Your task to perform on an android device: open app "DoorDash - Food Delivery" Image 0: 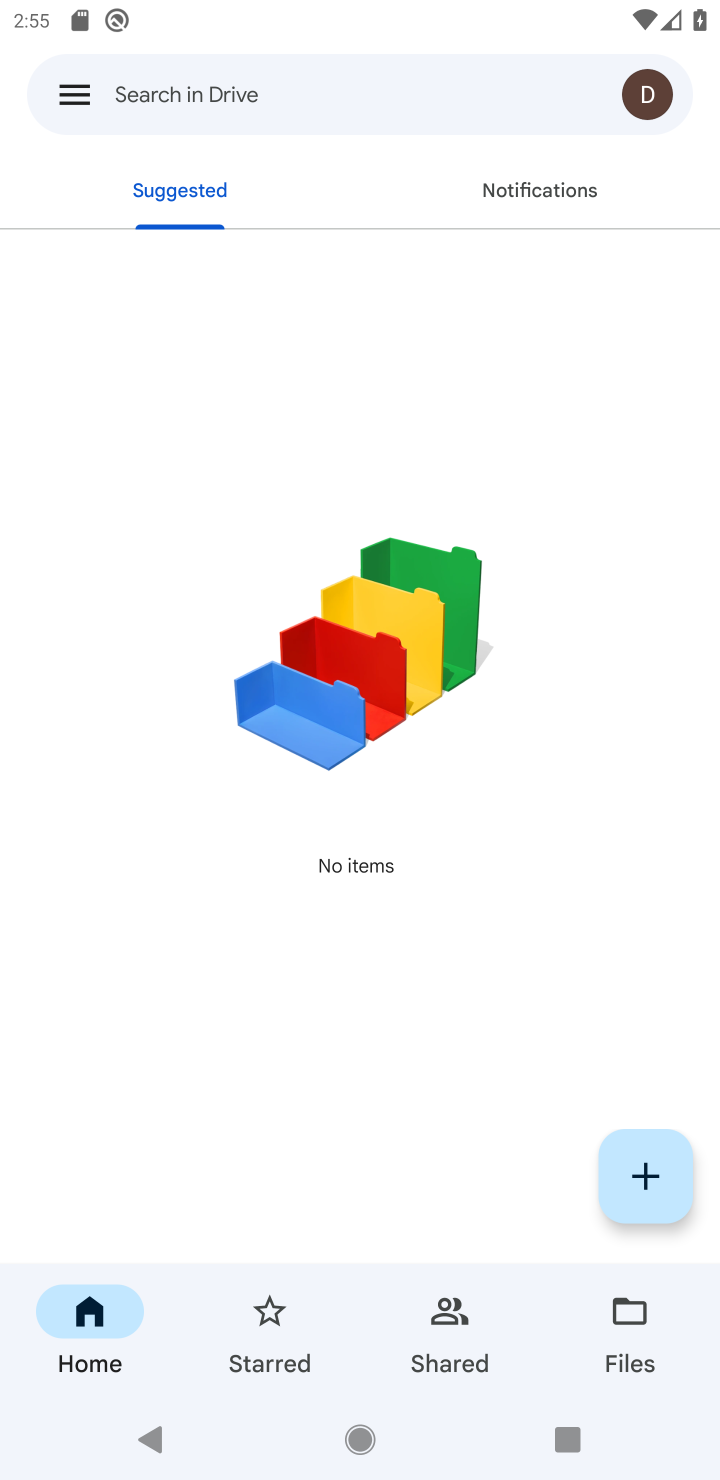
Step 0: press back button
Your task to perform on an android device: open app "DoorDash - Food Delivery" Image 1: 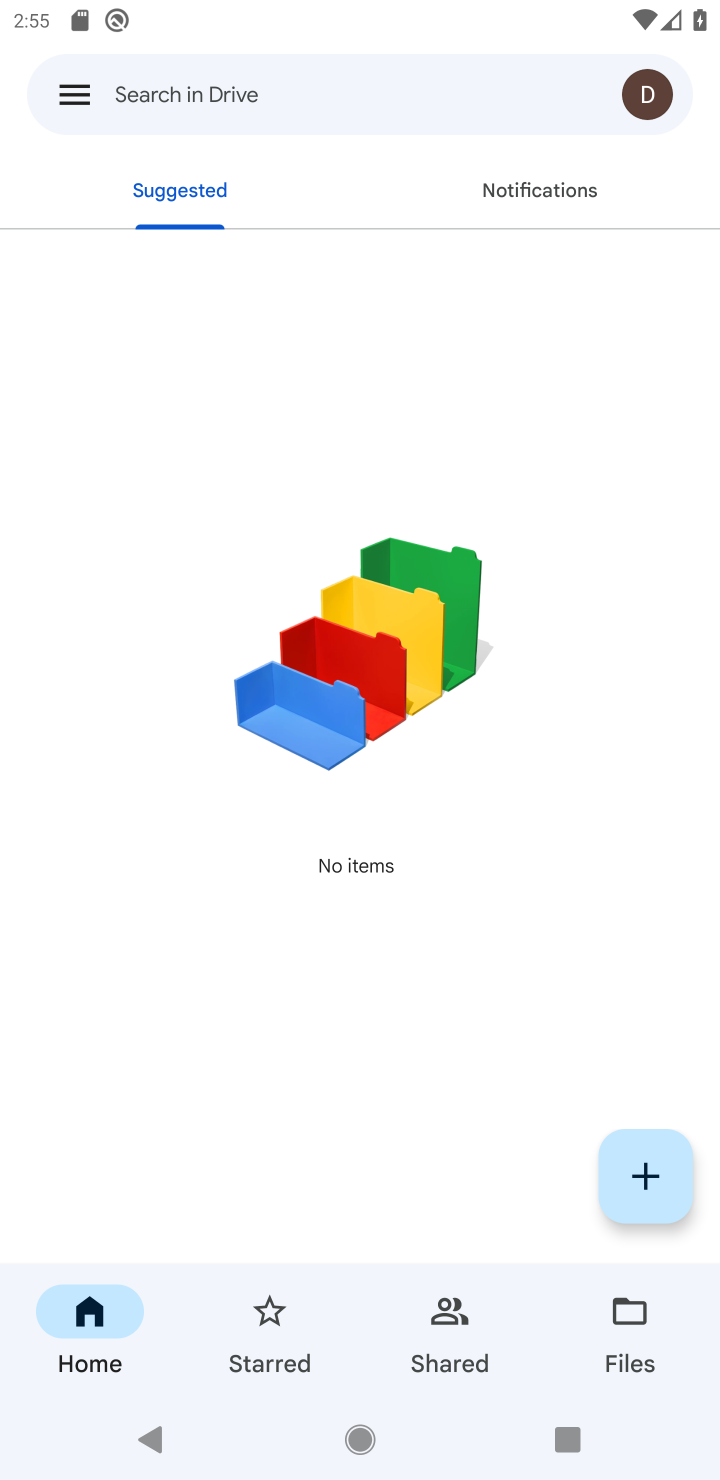
Step 1: press back button
Your task to perform on an android device: open app "DoorDash - Food Delivery" Image 2: 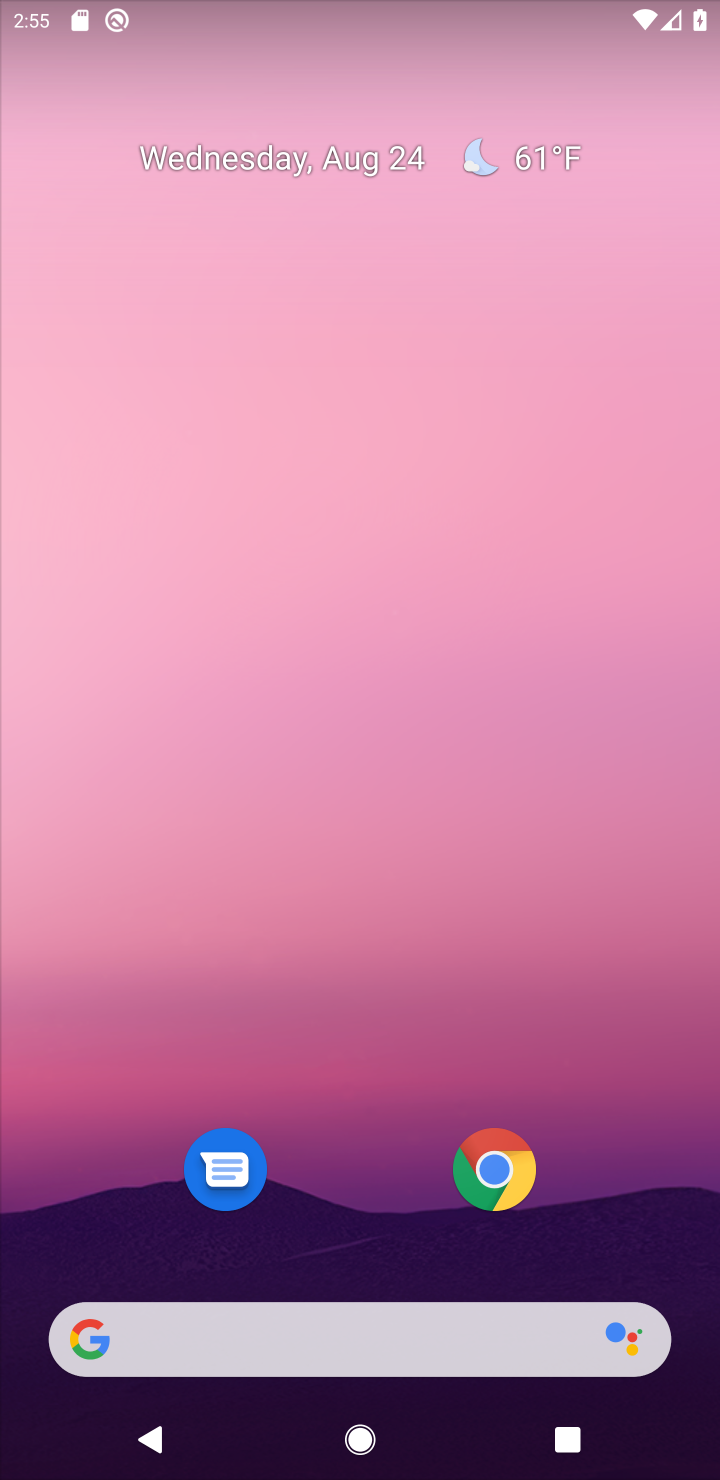
Step 2: drag from (414, 1283) to (338, 380)
Your task to perform on an android device: open app "DoorDash - Food Delivery" Image 3: 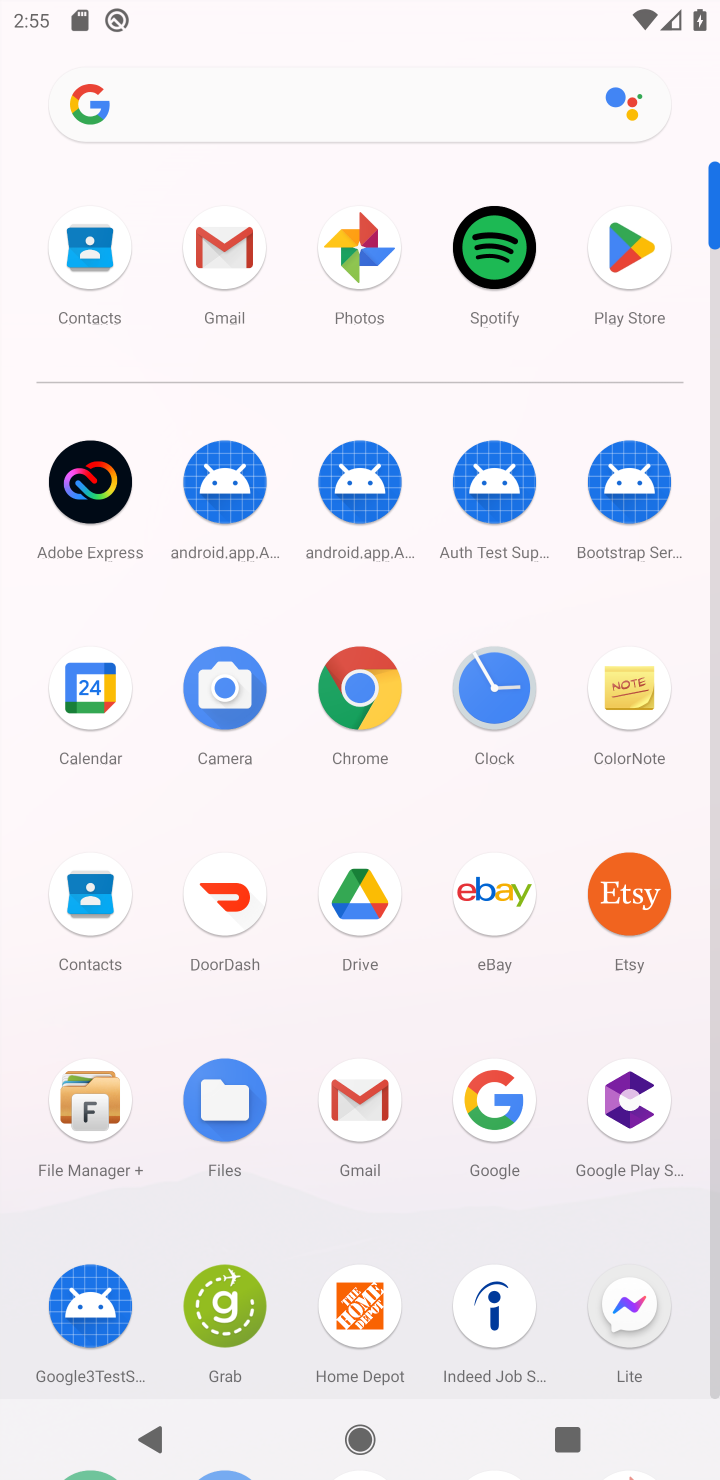
Step 3: click (632, 265)
Your task to perform on an android device: open app "DoorDash - Food Delivery" Image 4: 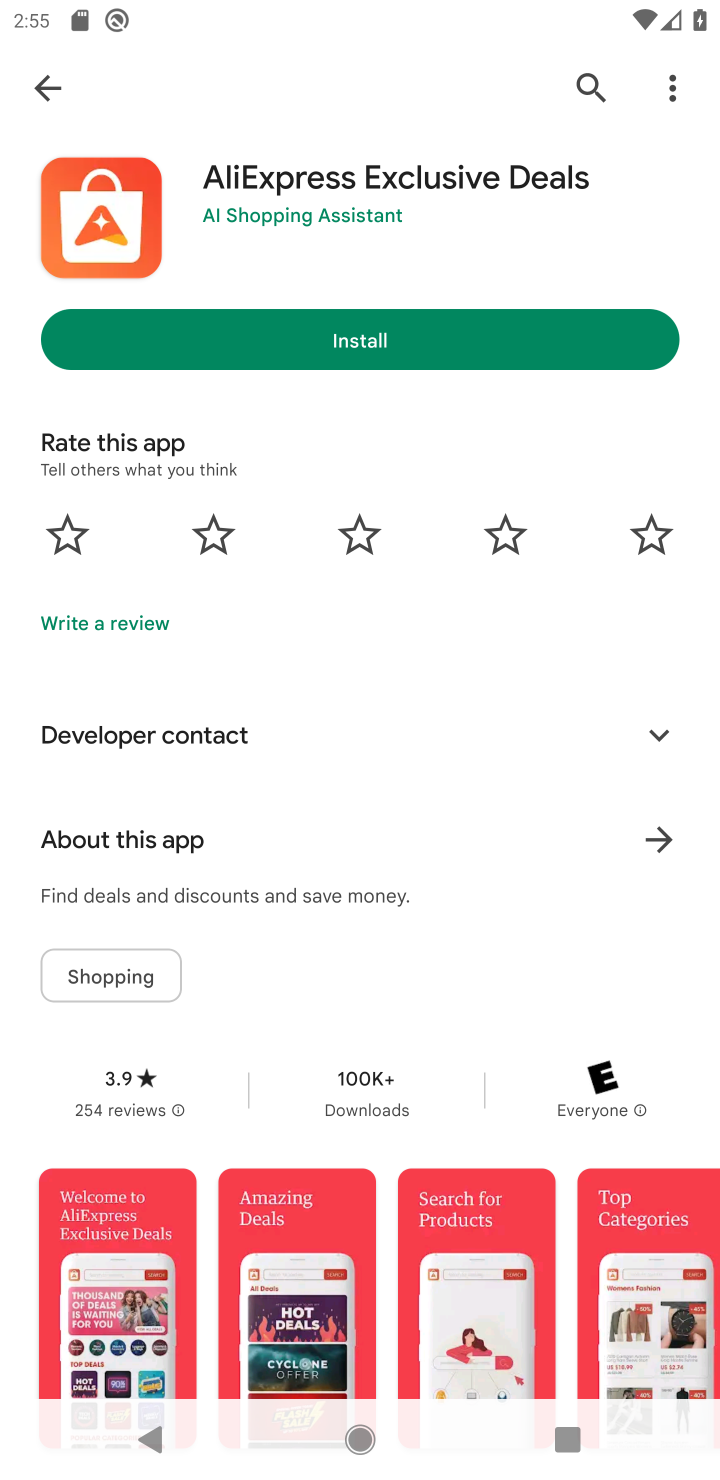
Step 4: click (585, 82)
Your task to perform on an android device: open app "DoorDash - Food Delivery" Image 5: 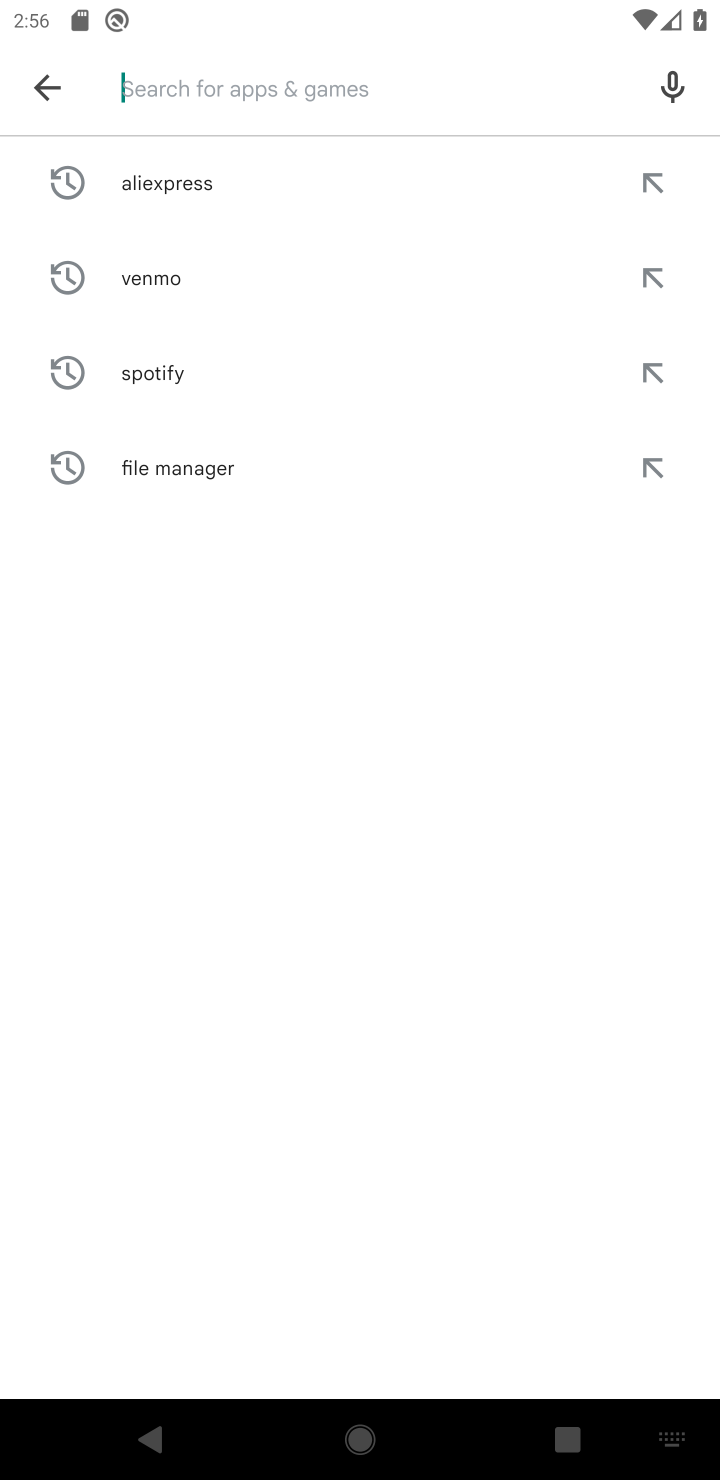
Step 5: type "DoorDash"
Your task to perform on an android device: open app "DoorDash - Food Delivery" Image 6: 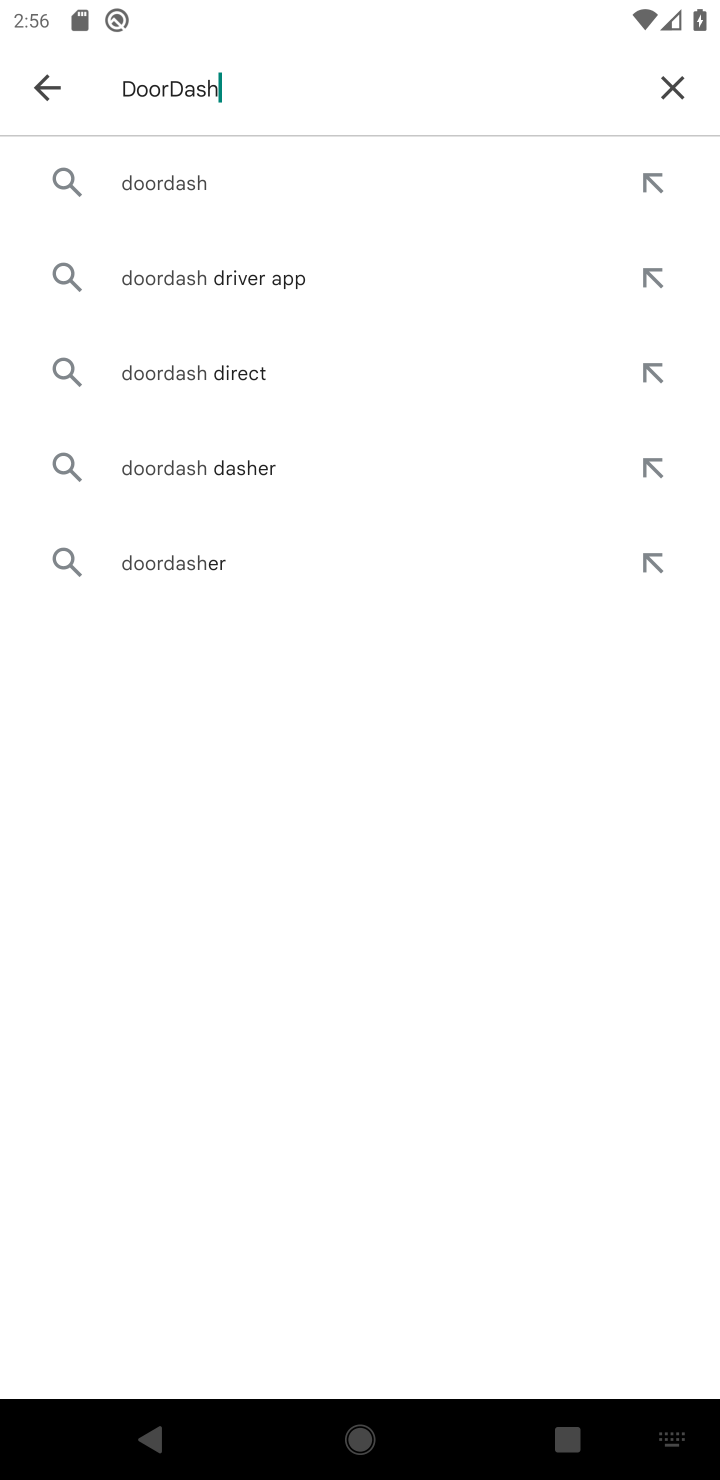
Step 6: click (182, 202)
Your task to perform on an android device: open app "DoorDash - Food Delivery" Image 7: 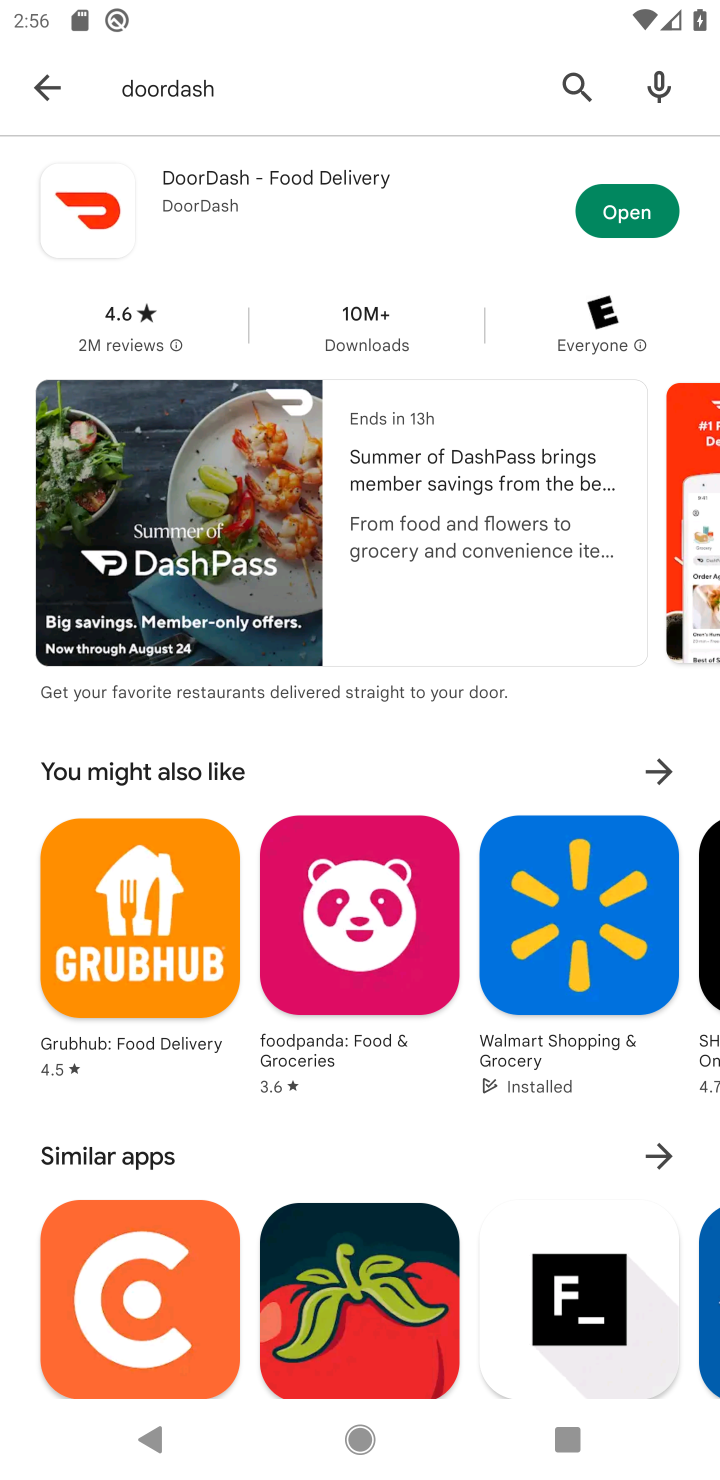
Step 7: click (616, 207)
Your task to perform on an android device: open app "DoorDash - Food Delivery" Image 8: 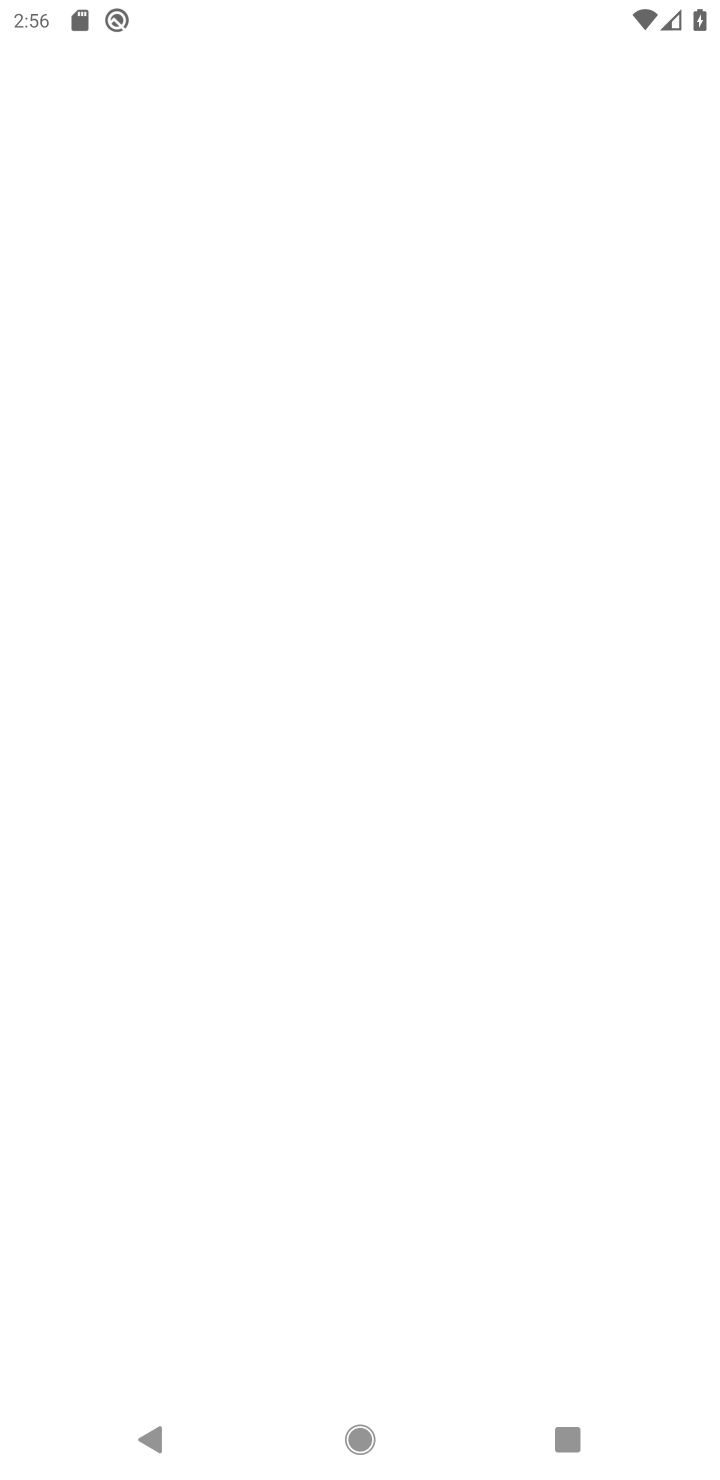
Step 8: task complete